Your task to perform on an android device: see sites visited before in the chrome app Image 0: 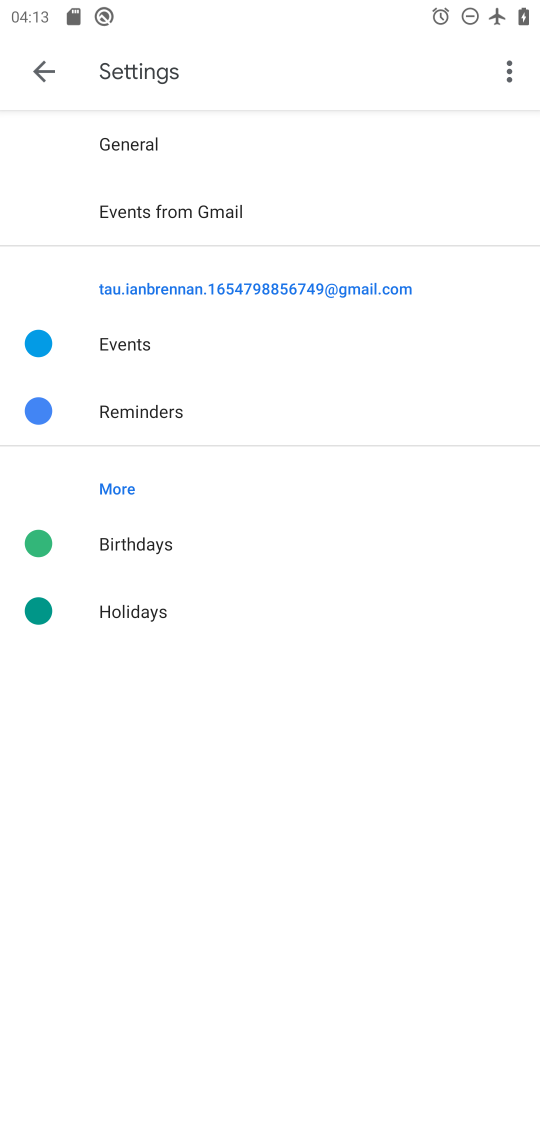
Step 0: press home button
Your task to perform on an android device: see sites visited before in the chrome app Image 1: 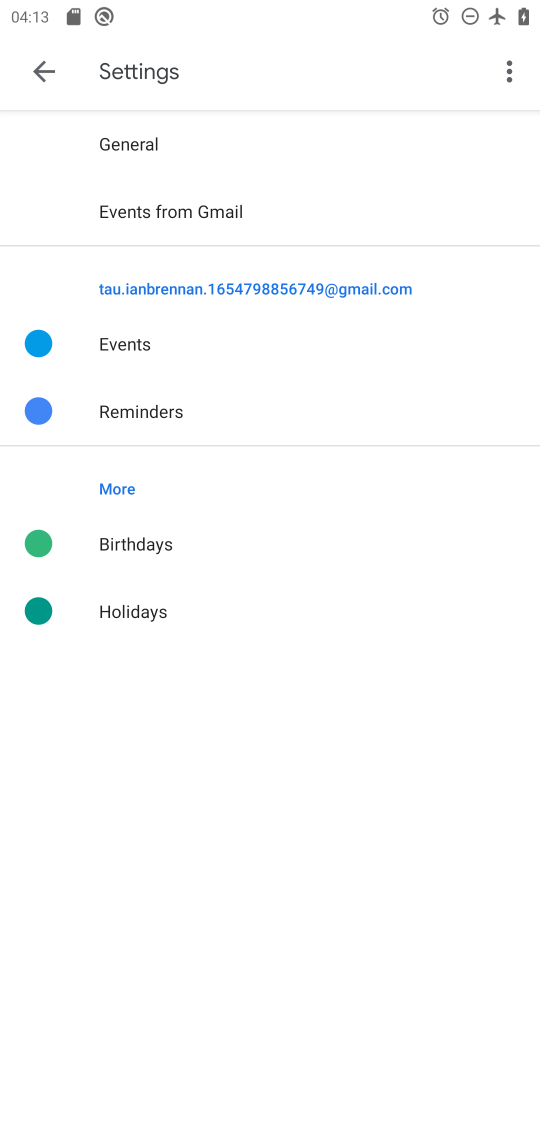
Step 1: press home button
Your task to perform on an android device: see sites visited before in the chrome app Image 2: 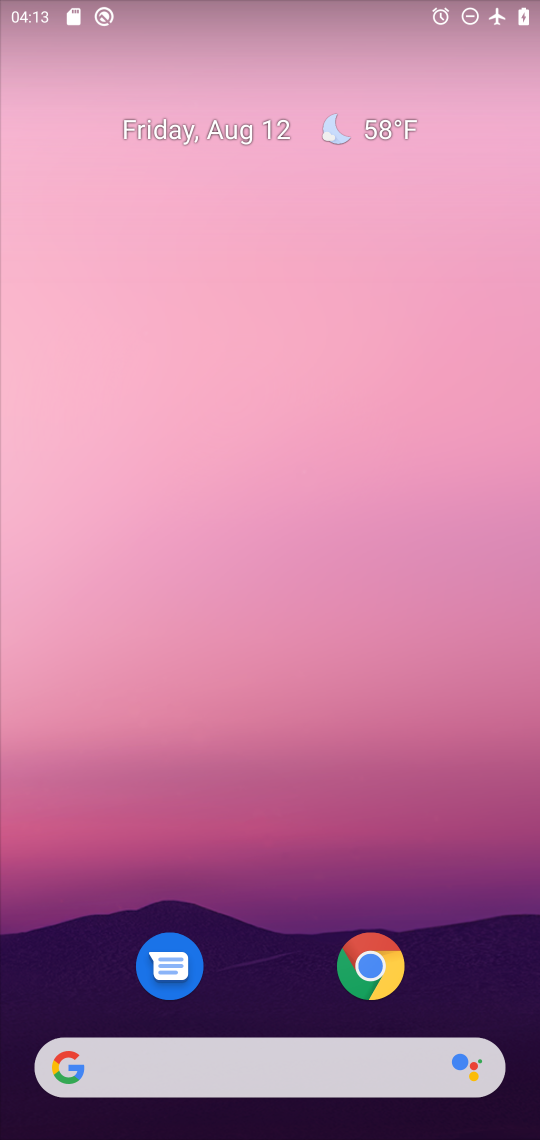
Step 2: drag from (314, 502) to (351, 273)
Your task to perform on an android device: see sites visited before in the chrome app Image 3: 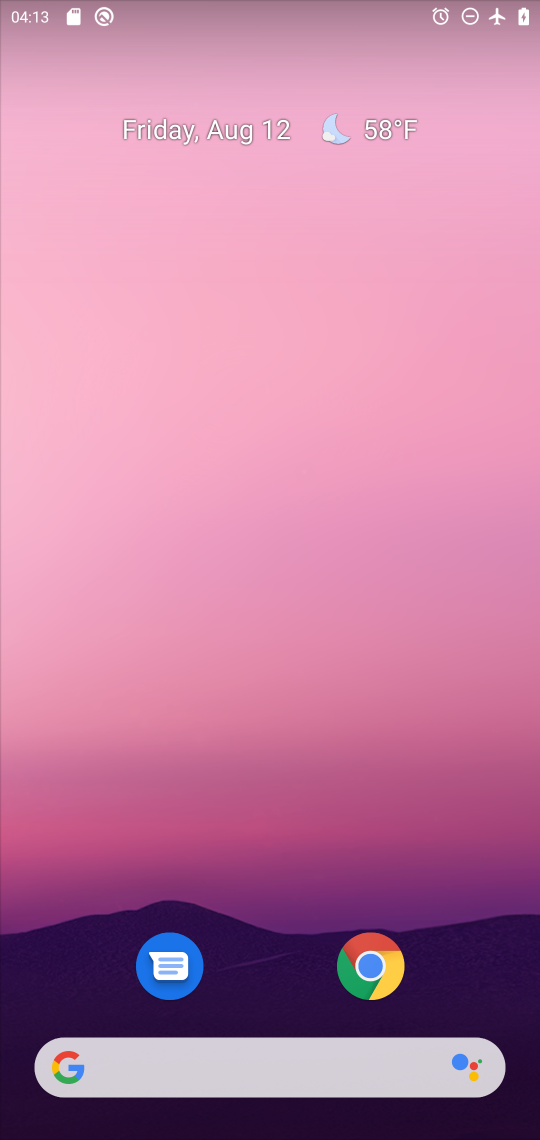
Step 3: drag from (258, 896) to (383, 55)
Your task to perform on an android device: see sites visited before in the chrome app Image 4: 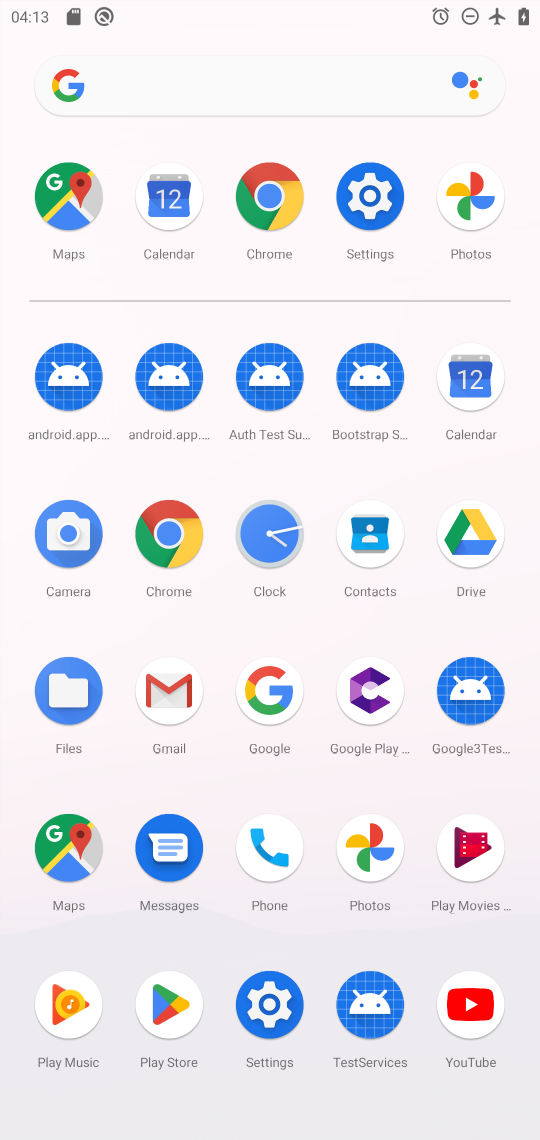
Step 4: click (167, 535)
Your task to perform on an android device: see sites visited before in the chrome app Image 5: 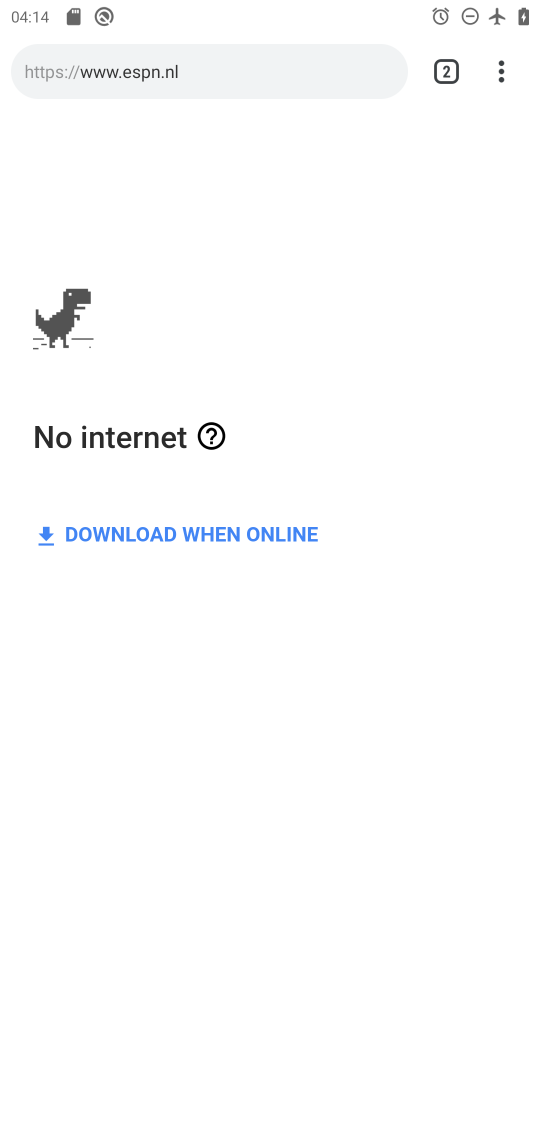
Step 5: task complete